Your task to perform on an android device: Open the calendar app, open the side menu, and click the "Day" option Image 0: 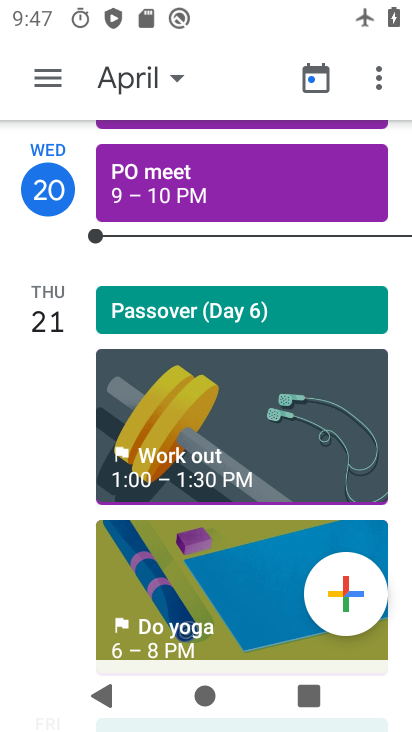
Step 0: click (56, 76)
Your task to perform on an android device: Open the calendar app, open the side menu, and click the "Day" option Image 1: 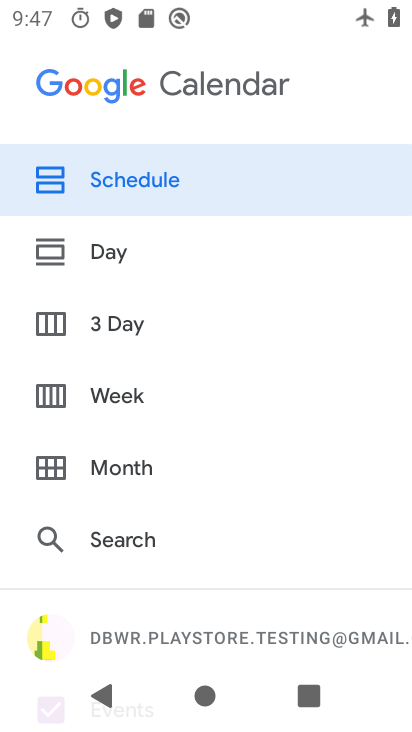
Step 1: click (90, 247)
Your task to perform on an android device: Open the calendar app, open the side menu, and click the "Day" option Image 2: 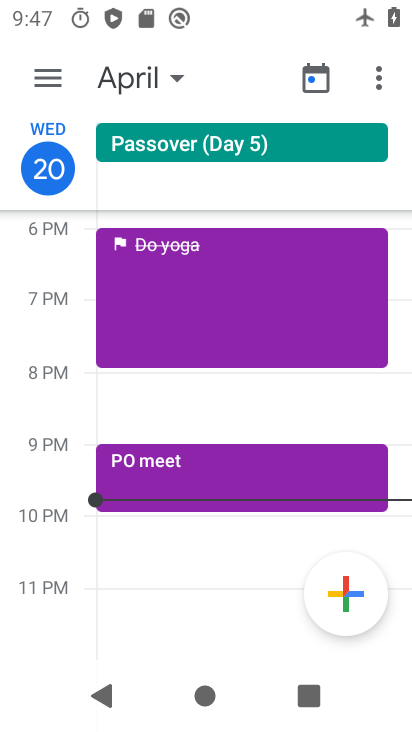
Step 2: task complete